Your task to perform on an android device: see creations saved in the google photos Image 0: 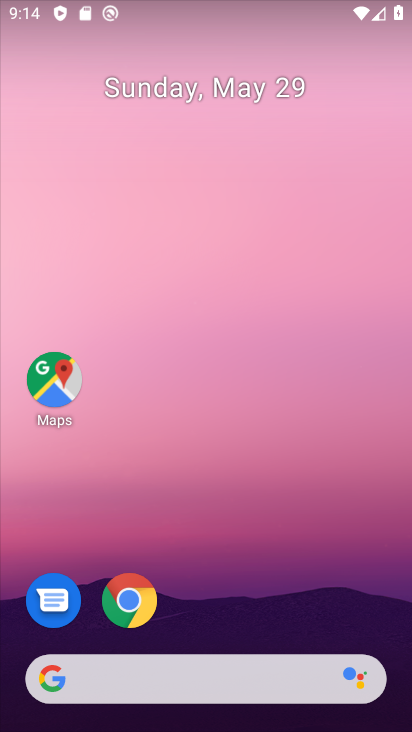
Step 0: drag from (263, 582) to (288, 6)
Your task to perform on an android device: see creations saved in the google photos Image 1: 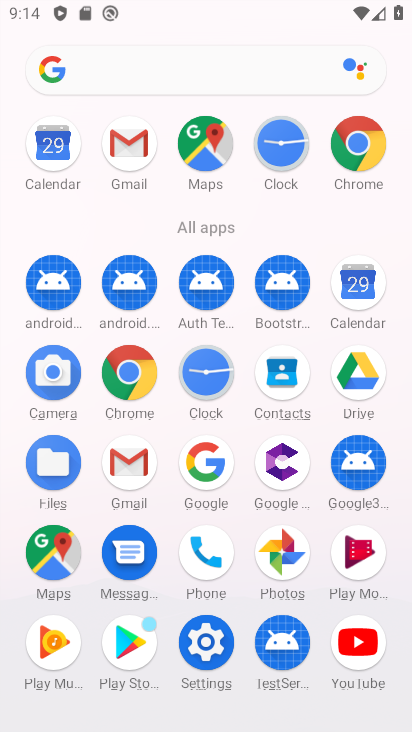
Step 1: click (287, 551)
Your task to perform on an android device: see creations saved in the google photos Image 2: 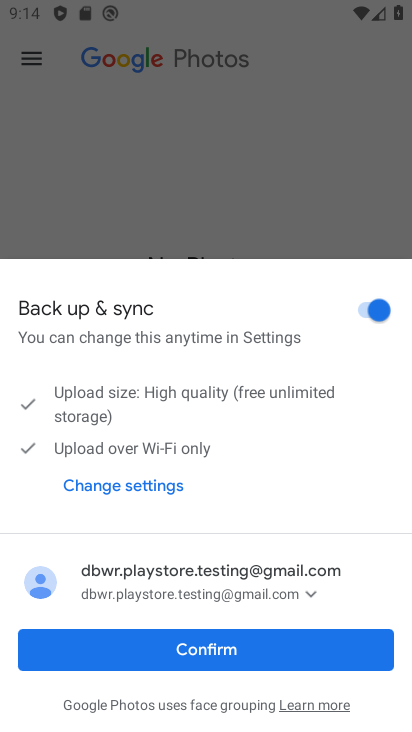
Step 2: click (218, 646)
Your task to perform on an android device: see creations saved in the google photos Image 3: 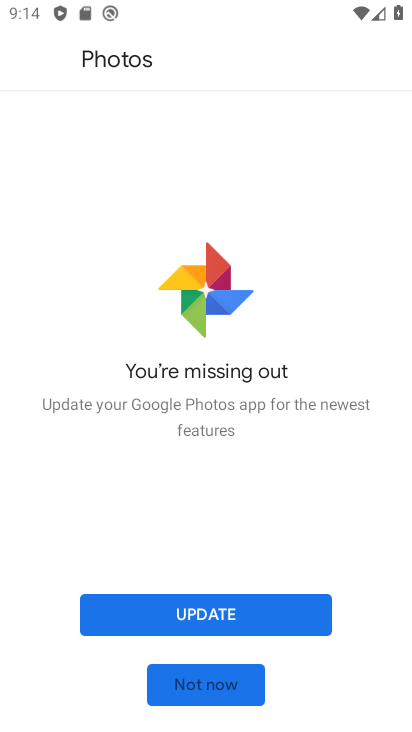
Step 3: click (252, 614)
Your task to perform on an android device: see creations saved in the google photos Image 4: 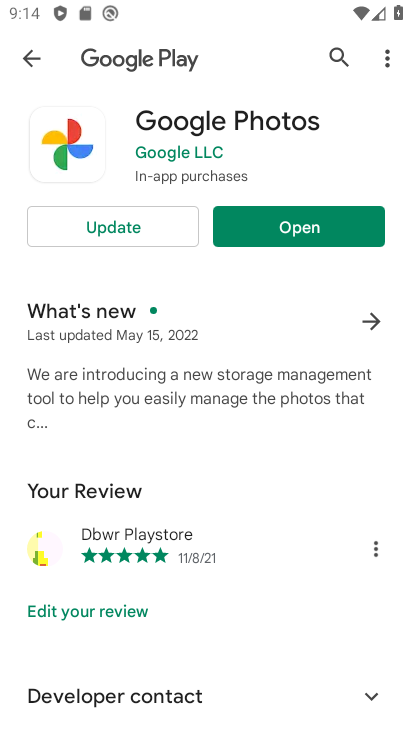
Step 4: click (130, 223)
Your task to perform on an android device: see creations saved in the google photos Image 5: 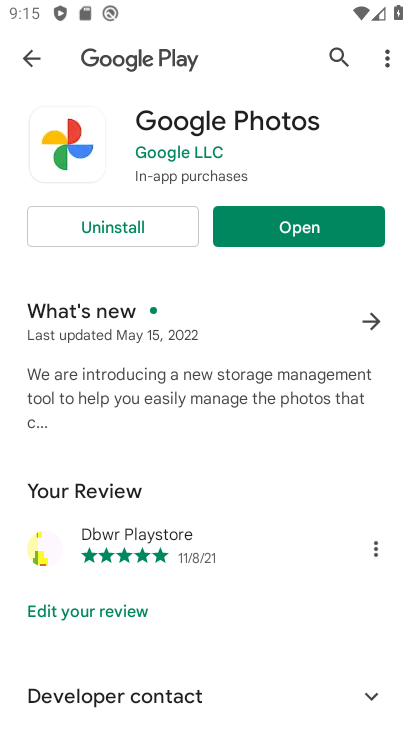
Step 5: click (294, 219)
Your task to perform on an android device: see creations saved in the google photos Image 6: 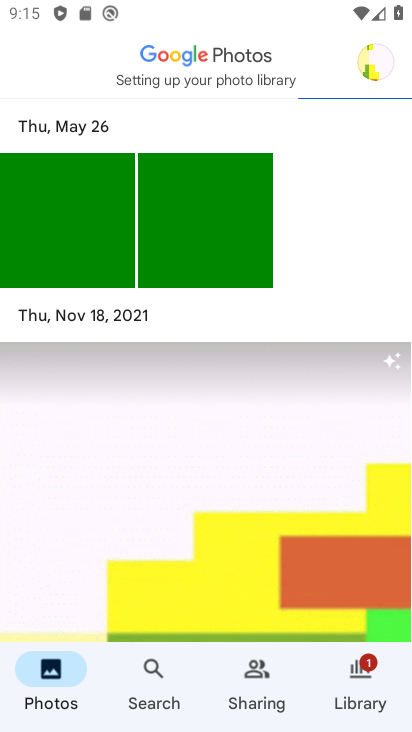
Step 6: click (153, 674)
Your task to perform on an android device: see creations saved in the google photos Image 7: 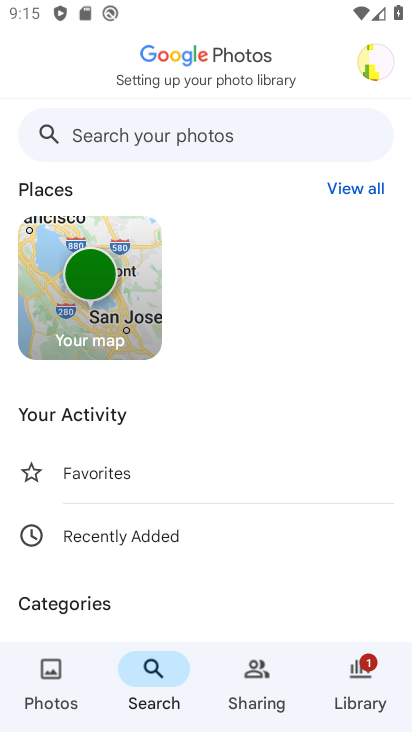
Step 7: click (119, 136)
Your task to perform on an android device: see creations saved in the google photos Image 8: 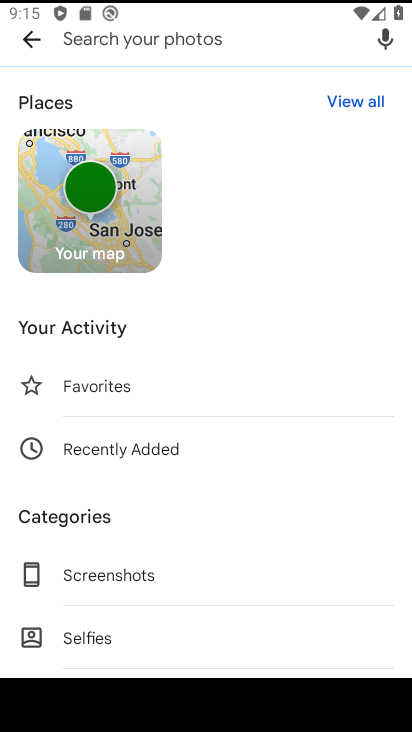
Step 8: drag from (222, 580) to (233, 249)
Your task to perform on an android device: see creations saved in the google photos Image 9: 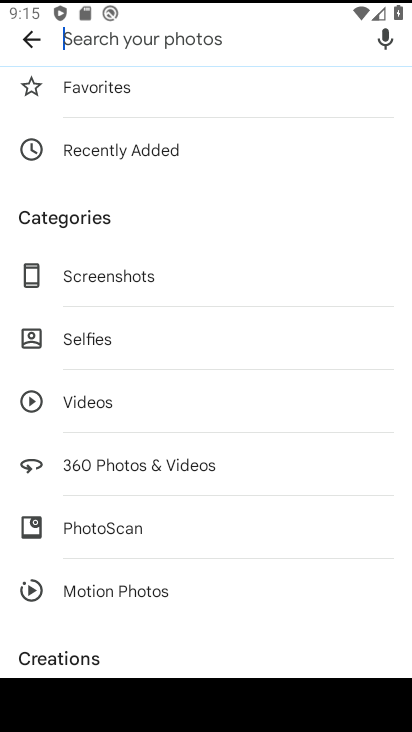
Step 9: drag from (172, 497) to (225, 209)
Your task to perform on an android device: see creations saved in the google photos Image 10: 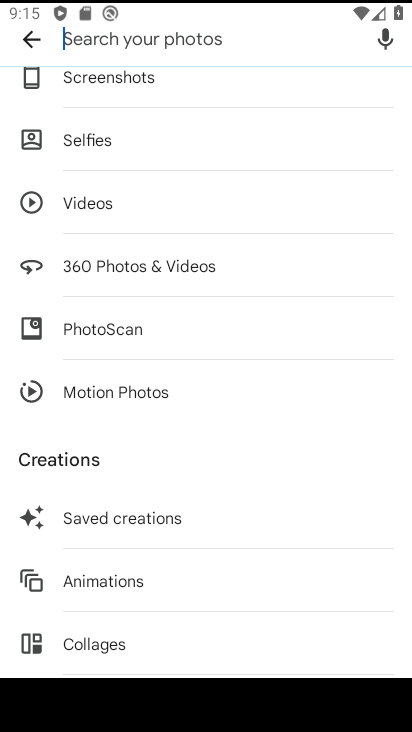
Step 10: click (80, 519)
Your task to perform on an android device: see creations saved in the google photos Image 11: 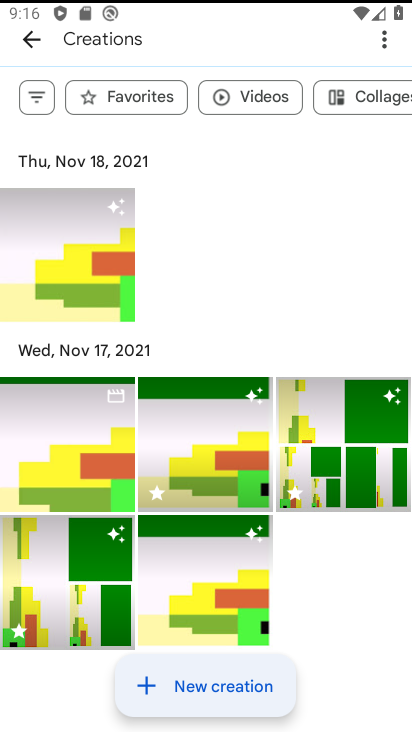
Step 11: task complete